Your task to perform on an android device: Go to privacy settings Image 0: 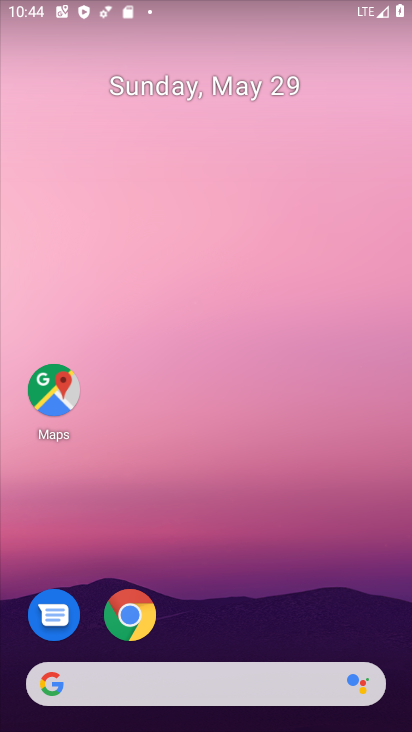
Step 0: drag from (392, 646) to (378, 322)
Your task to perform on an android device: Go to privacy settings Image 1: 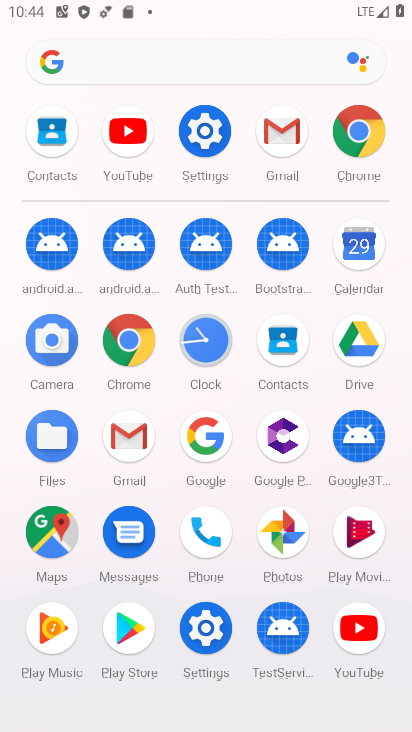
Step 1: click (218, 631)
Your task to perform on an android device: Go to privacy settings Image 2: 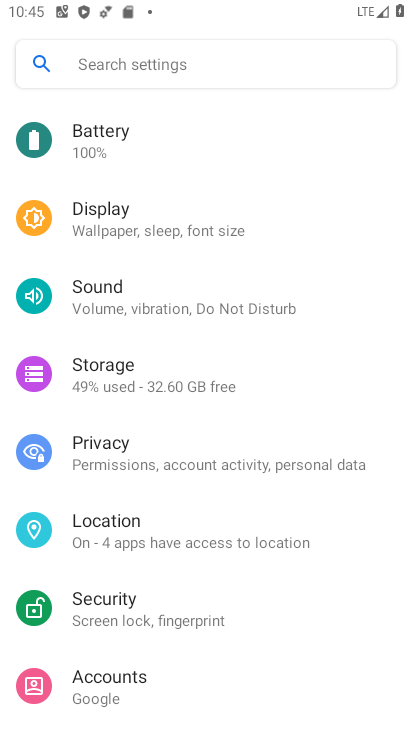
Step 2: drag from (341, 259) to (336, 378)
Your task to perform on an android device: Go to privacy settings Image 3: 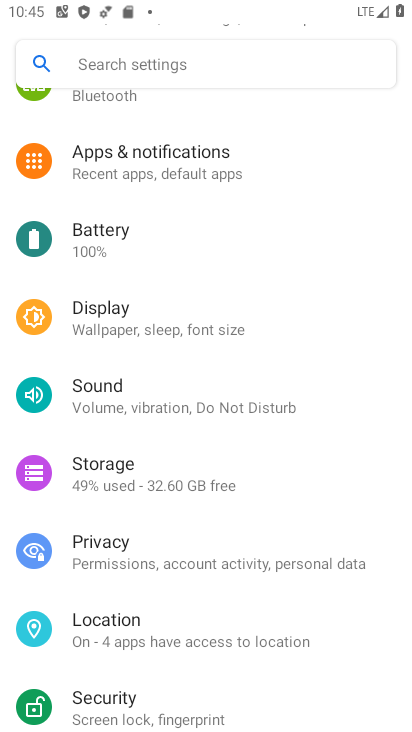
Step 3: drag from (340, 228) to (334, 388)
Your task to perform on an android device: Go to privacy settings Image 4: 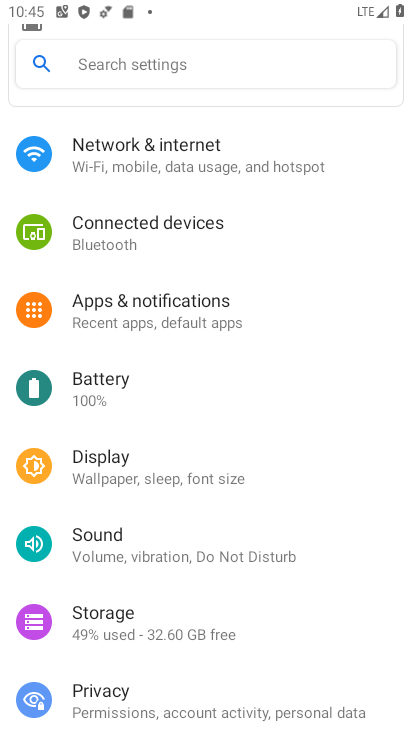
Step 4: drag from (356, 153) to (357, 358)
Your task to perform on an android device: Go to privacy settings Image 5: 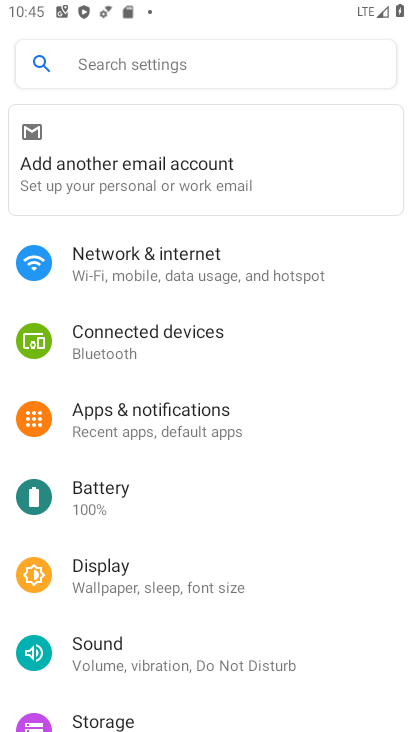
Step 5: drag from (361, 428) to (363, 344)
Your task to perform on an android device: Go to privacy settings Image 6: 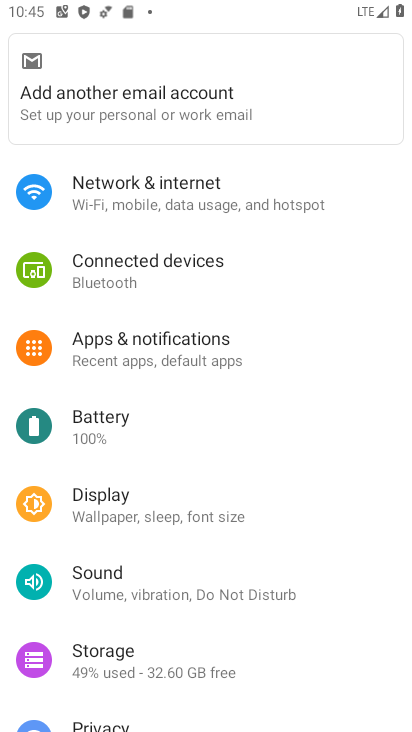
Step 6: drag from (347, 435) to (350, 344)
Your task to perform on an android device: Go to privacy settings Image 7: 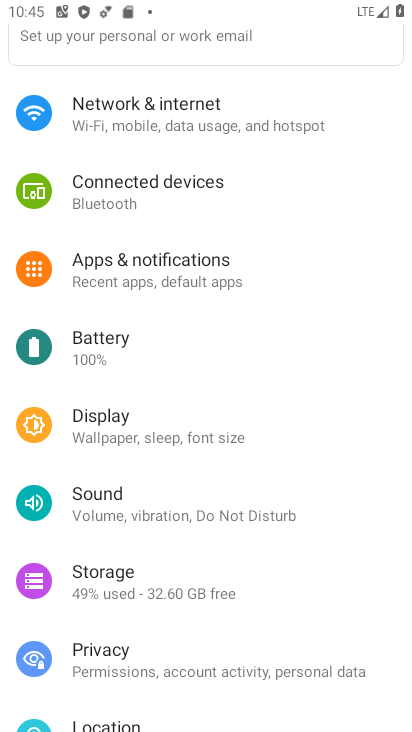
Step 7: drag from (343, 433) to (350, 367)
Your task to perform on an android device: Go to privacy settings Image 8: 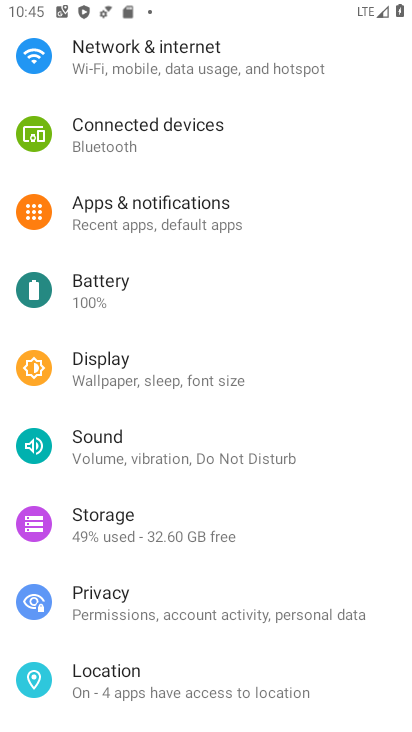
Step 8: drag from (347, 440) to (347, 398)
Your task to perform on an android device: Go to privacy settings Image 9: 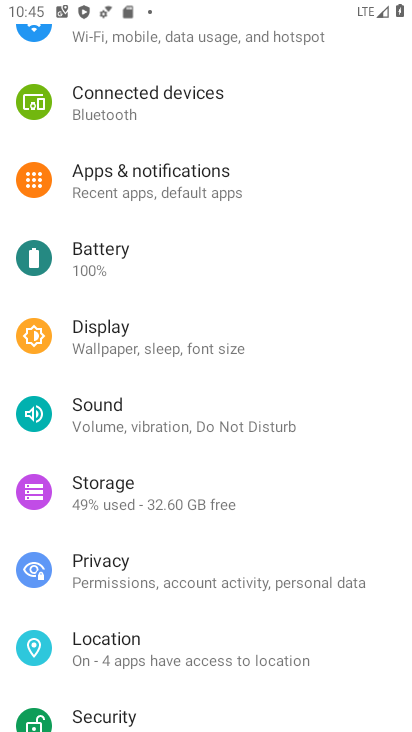
Step 9: drag from (342, 441) to (345, 400)
Your task to perform on an android device: Go to privacy settings Image 10: 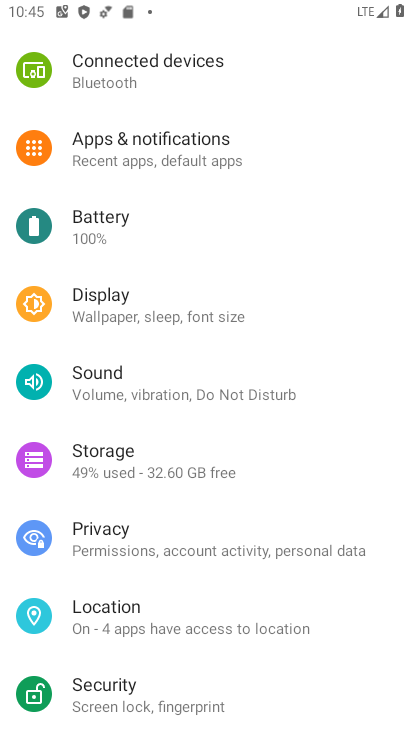
Step 10: drag from (338, 435) to (349, 370)
Your task to perform on an android device: Go to privacy settings Image 11: 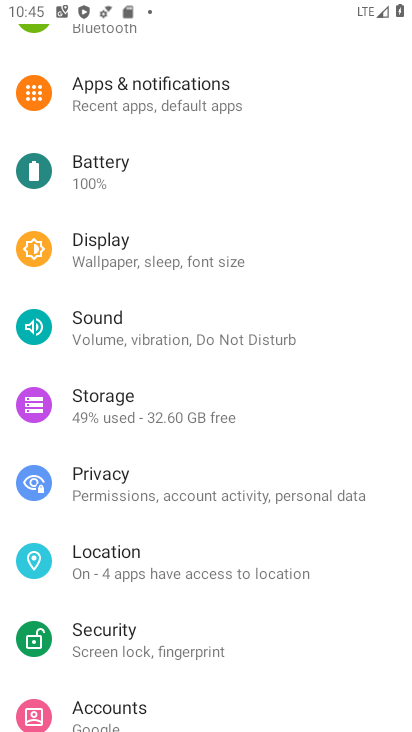
Step 11: drag from (342, 447) to (346, 387)
Your task to perform on an android device: Go to privacy settings Image 12: 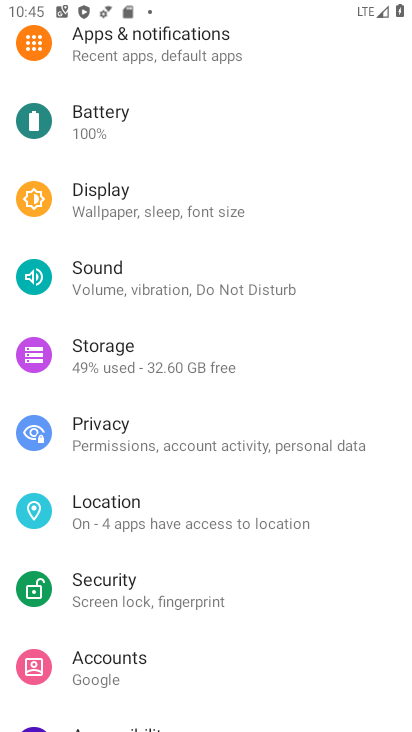
Step 12: click (295, 452)
Your task to perform on an android device: Go to privacy settings Image 13: 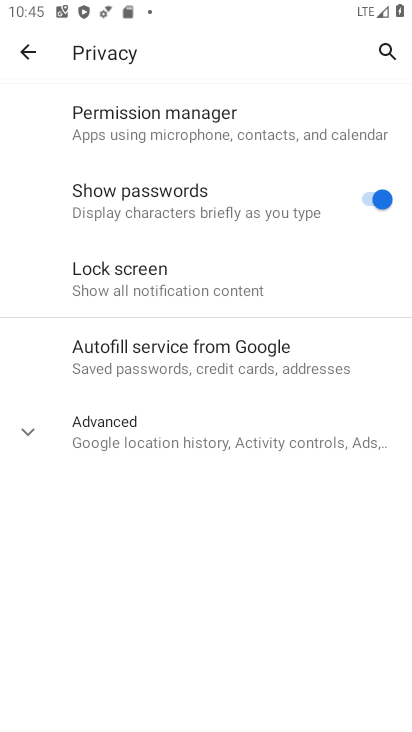
Step 13: task complete